Your task to perform on an android device: turn on the 12-hour format for clock Image 0: 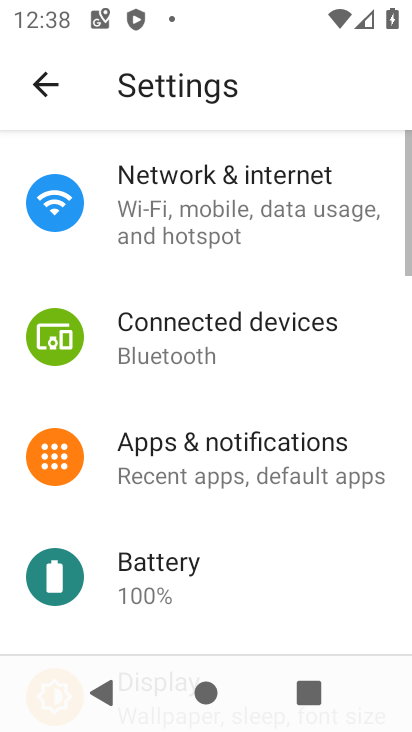
Step 0: press home button
Your task to perform on an android device: turn on the 12-hour format for clock Image 1: 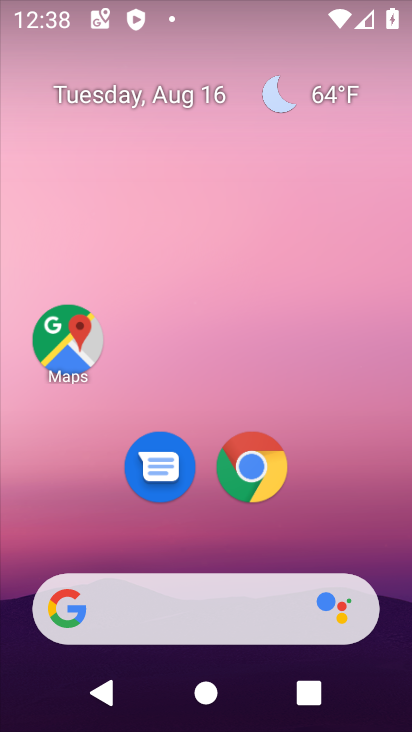
Step 1: drag from (388, 581) to (411, 357)
Your task to perform on an android device: turn on the 12-hour format for clock Image 2: 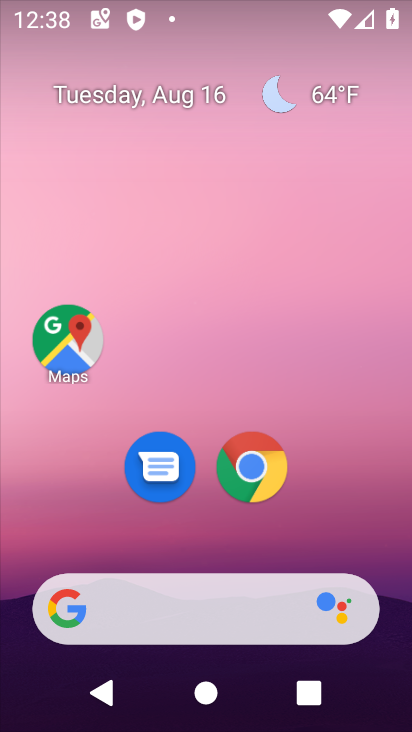
Step 2: click (347, 392)
Your task to perform on an android device: turn on the 12-hour format for clock Image 3: 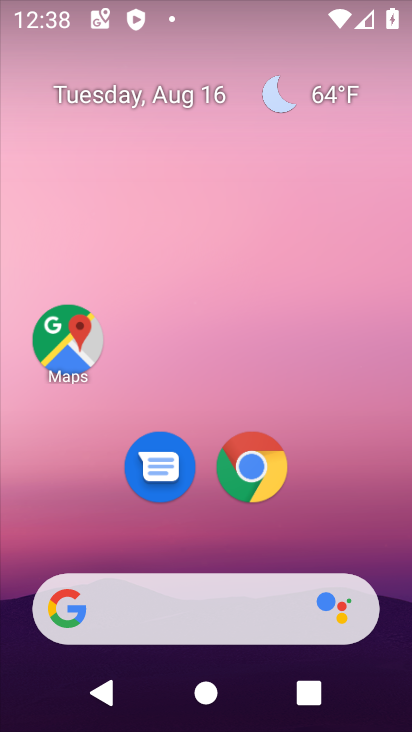
Step 3: drag from (373, 551) to (353, 3)
Your task to perform on an android device: turn on the 12-hour format for clock Image 4: 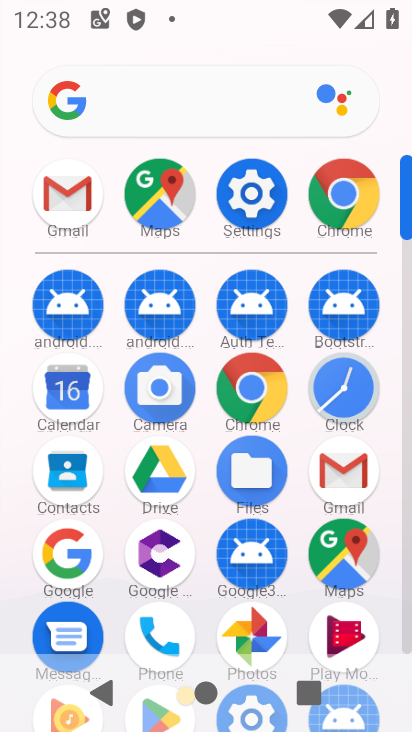
Step 4: click (351, 385)
Your task to perform on an android device: turn on the 12-hour format for clock Image 5: 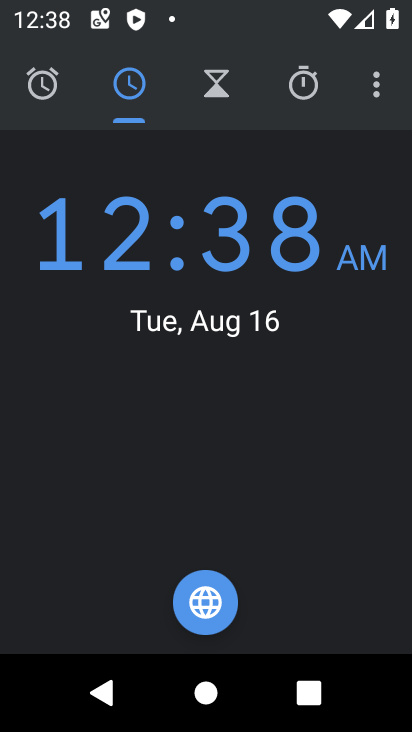
Step 5: click (374, 93)
Your task to perform on an android device: turn on the 12-hour format for clock Image 6: 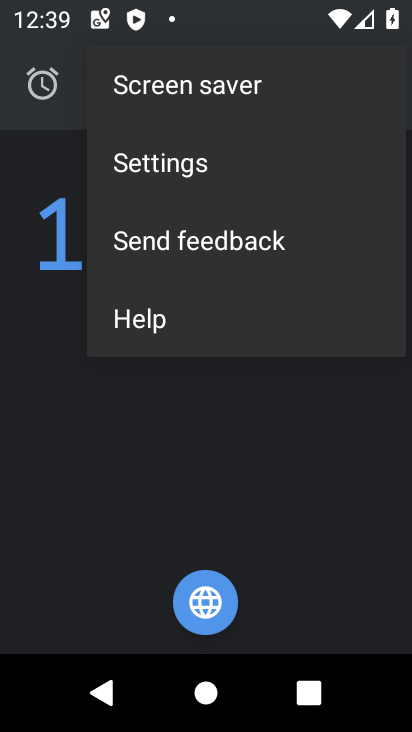
Step 6: click (221, 173)
Your task to perform on an android device: turn on the 12-hour format for clock Image 7: 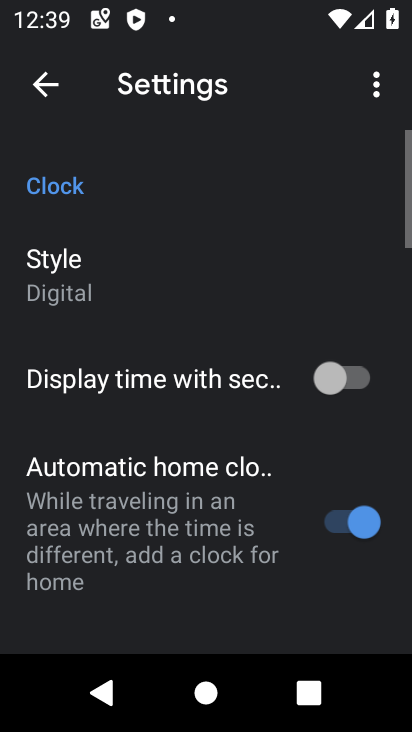
Step 7: drag from (272, 451) to (282, 348)
Your task to perform on an android device: turn on the 12-hour format for clock Image 8: 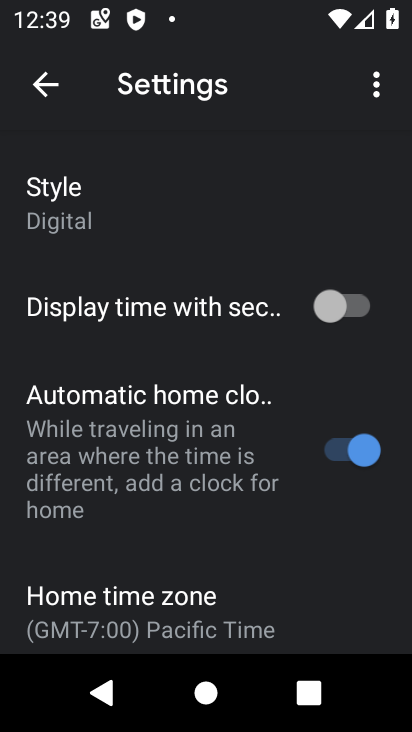
Step 8: drag from (276, 522) to (276, 391)
Your task to perform on an android device: turn on the 12-hour format for clock Image 9: 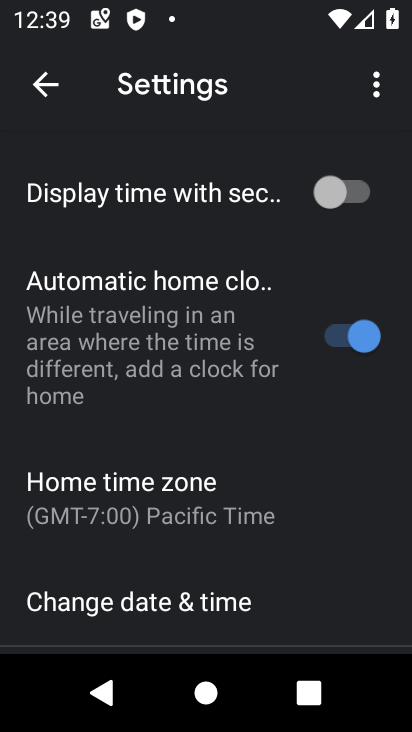
Step 9: drag from (289, 517) to (292, 420)
Your task to perform on an android device: turn on the 12-hour format for clock Image 10: 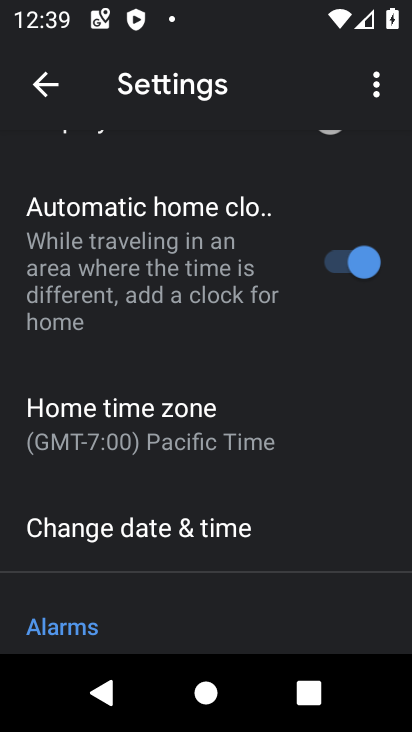
Step 10: drag from (300, 507) to (300, 399)
Your task to perform on an android device: turn on the 12-hour format for clock Image 11: 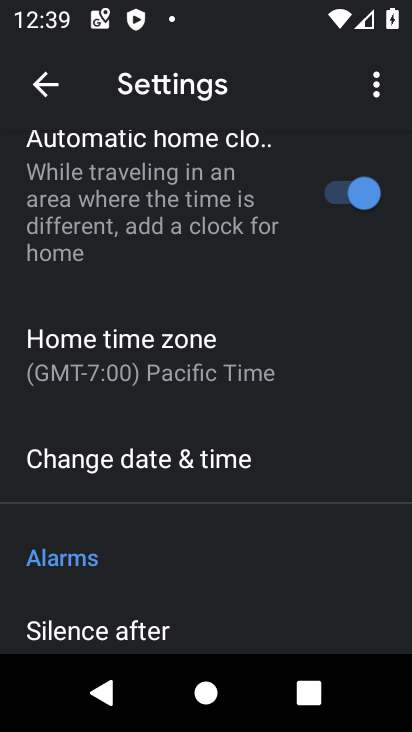
Step 11: drag from (273, 536) to (292, 402)
Your task to perform on an android device: turn on the 12-hour format for clock Image 12: 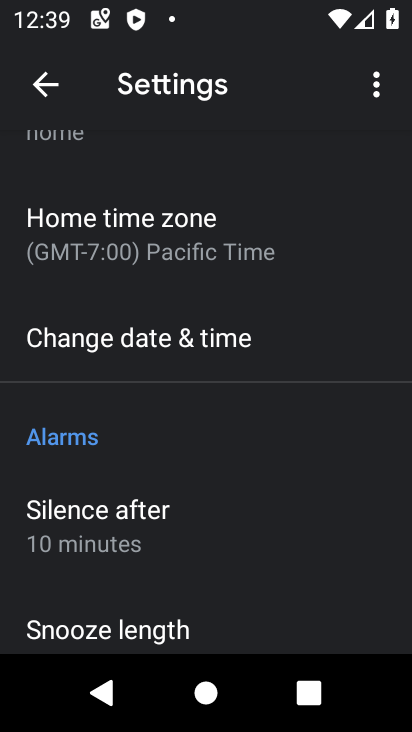
Step 12: click (263, 354)
Your task to perform on an android device: turn on the 12-hour format for clock Image 13: 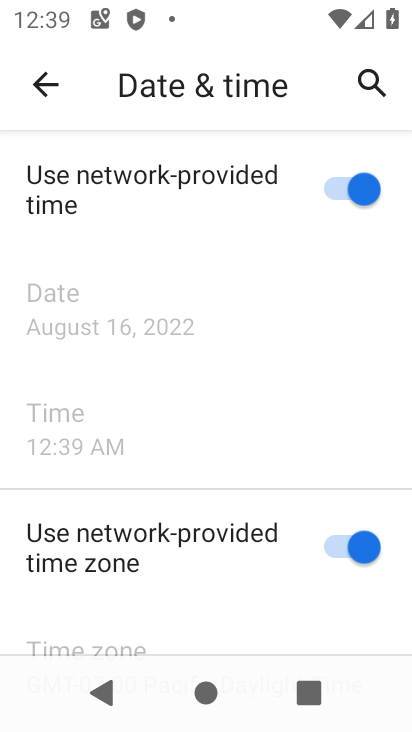
Step 13: task complete